Your task to perform on an android device: check data usage Image 0: 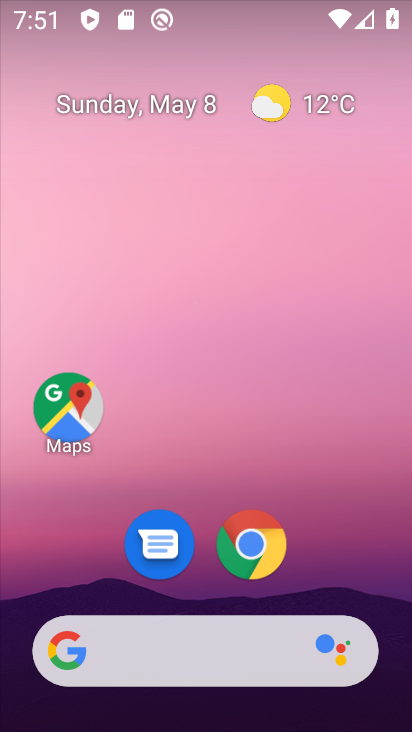
Step 0: drag from (276, 468) to (203, 71)
Your task to perform on an android device: check data usage Image 1: 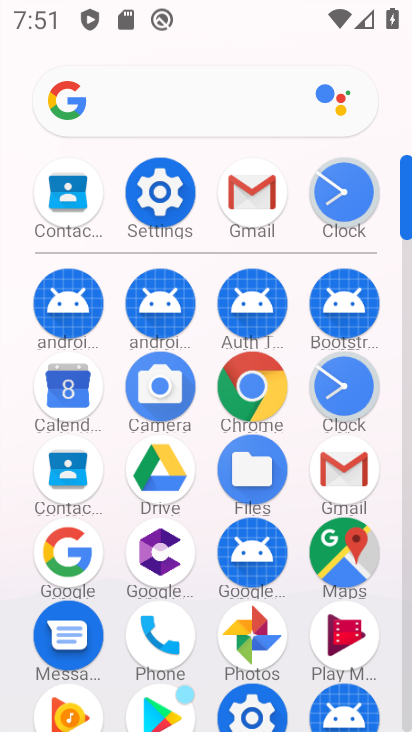
Step 1: click (162, 189)
Your task to perform on an android device: check data usage Image 2: 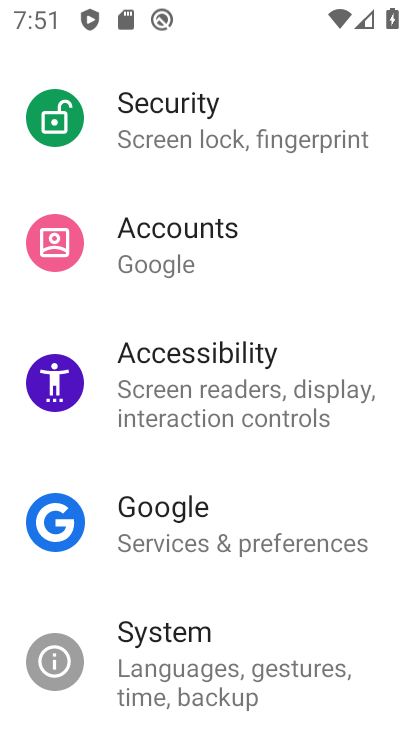
Step 2: drag from (265, 289) to (395, 730)
Your task to perform on an android device: check data usage Image 3: 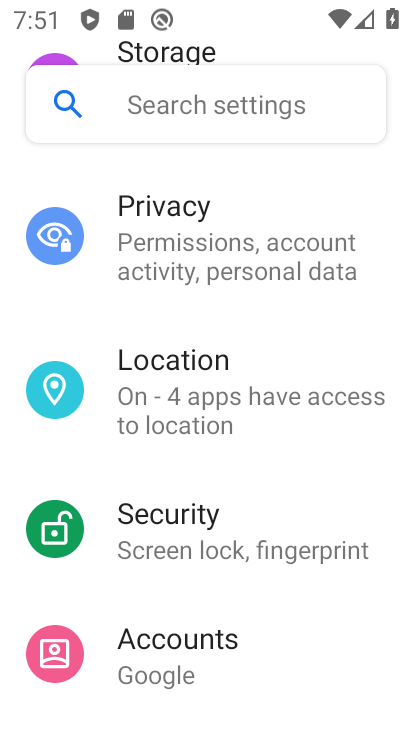
Step 3: drag from (265, 178) to (298, 599)
Your task to perform on an android device: check data usage Image 4: 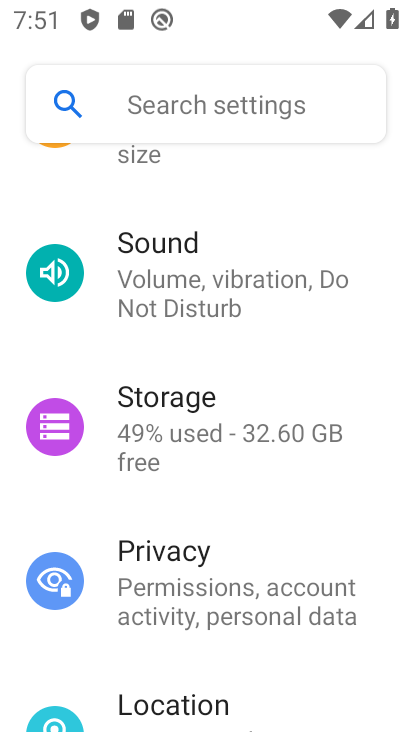
Step 4: drag from (225, 212) to (379, 727)
Your task to perform on an android device: check data usage Image 5: 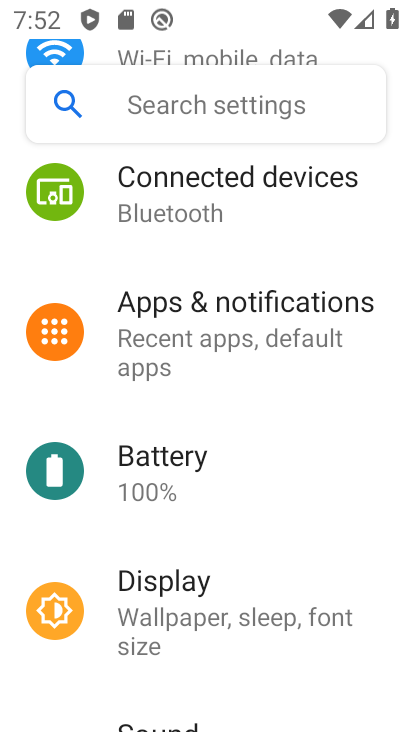
Step 5: drag from (247, 250) to (345, 716)
Your task to perform on an android device: check data usage Image 6: 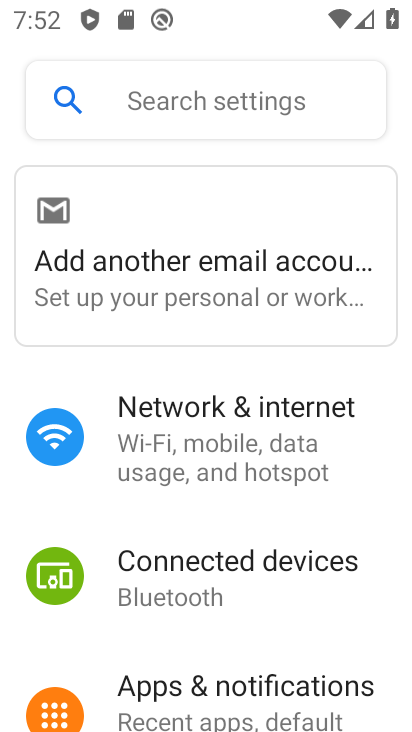
Step 6: click (188, 417)
Your task to perform on an android device: check data usage Image 7: 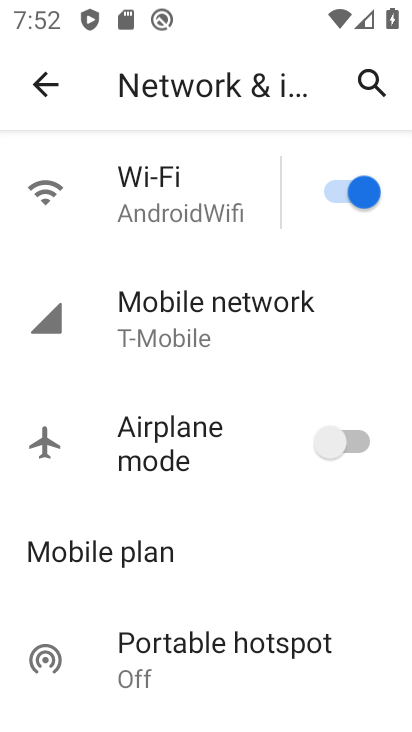
Step 7: click (181, 305)
Your task to perform on an android device: check data usage Image 8: 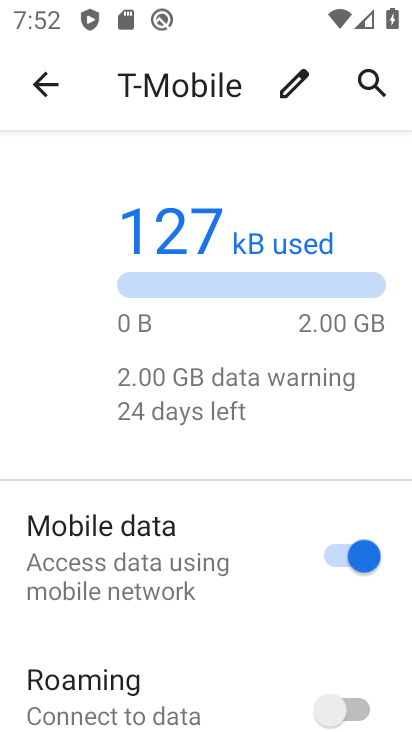
Step 8: task complete